Your task to perform on an android device: turn off picture-in-picture Image 0: 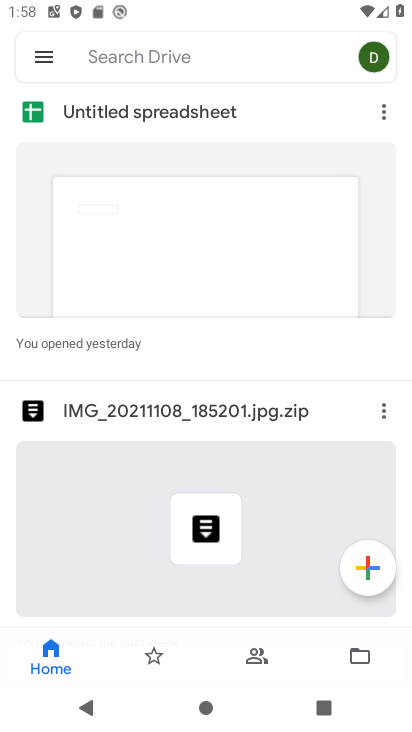
Step 0: press home button
Your task to perform on an android device: turn off picture-in-picture Image 1: 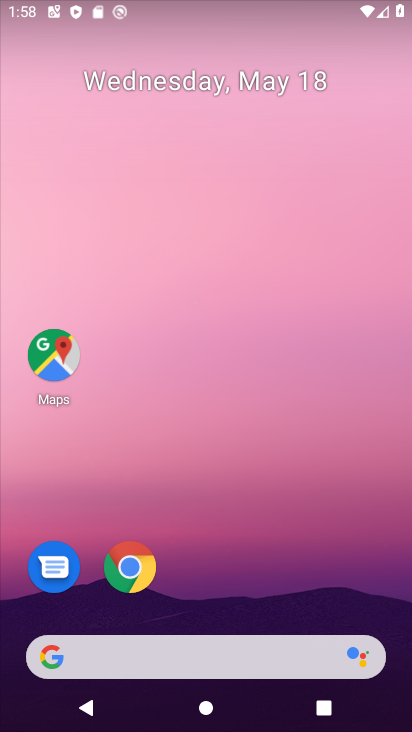
Step 1: click (140, 557)
Your task to perform on an android device: turn off picture-in-picture Image 2: 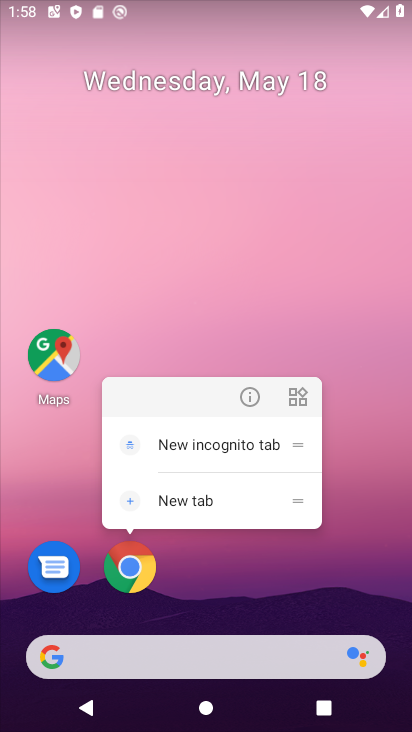
Step 2: click (243, 396)
Your task to perform on an android device: turn off picture-in-picture Image 3: 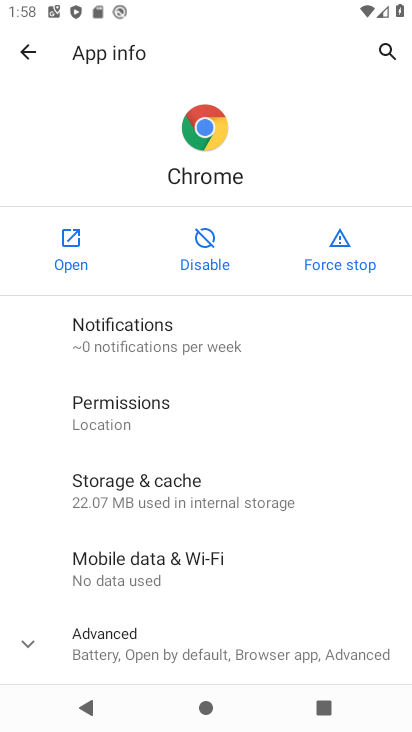
Step 3: drag from (218, 606) to (262, 177)
Your task to perform on an android device: turn off picture-in-picture Image 4: 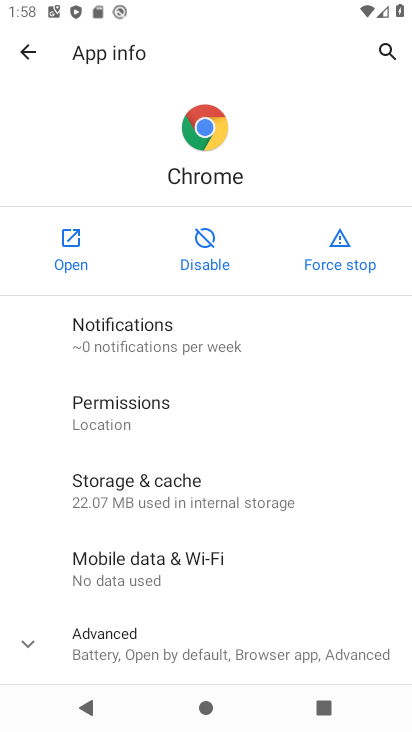
Step 4: click (174, 650)
Your task to perform on an android device: turn off picture-in-picture Image 5: 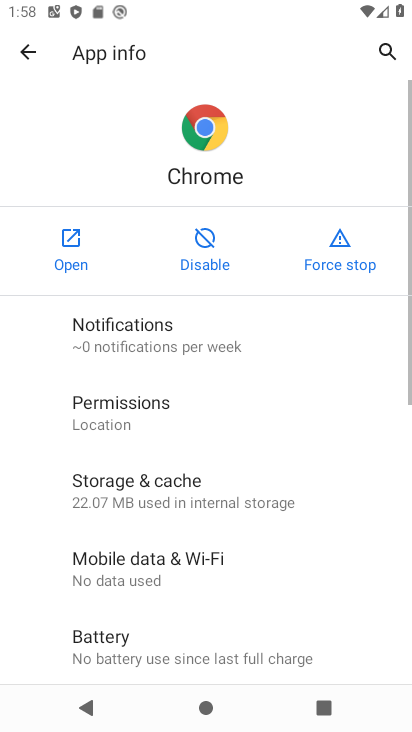
Step 5: drag from (227, 612) to (226, 102)
Your task to perform on an android device: turn off picture-in-picture Image 6: 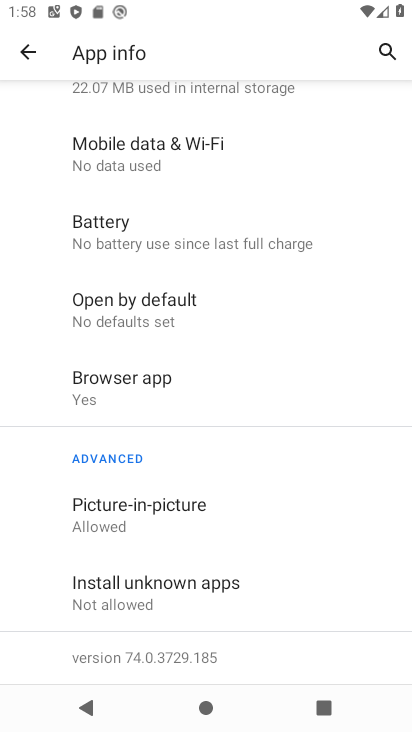
Step 6: click (175, 502)
Your task to perform on an android device: turn off picture-in-picture Image 7: 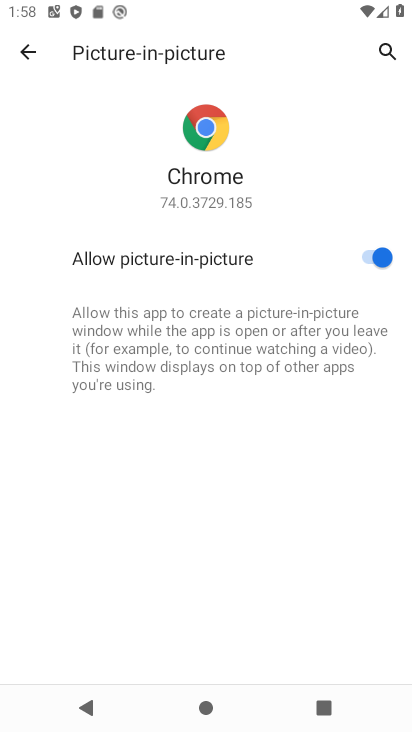
Step 7: click (372, 262)
Your task to perform on an android device: turn off picture-in-picture Image 8: 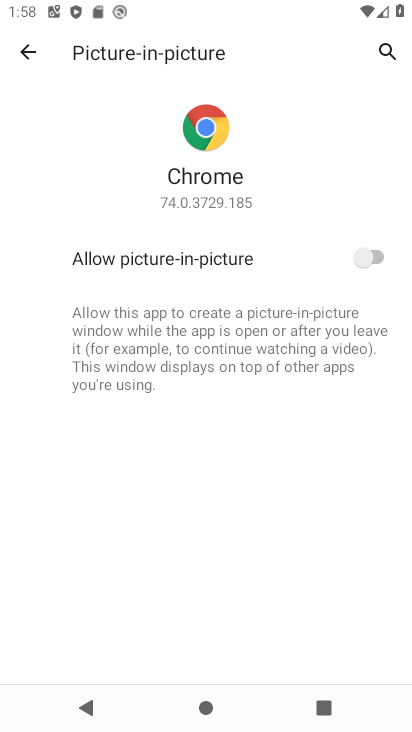
Step 8: task complete